Your task to perform on an android device: When is my next appointment? Image 0: 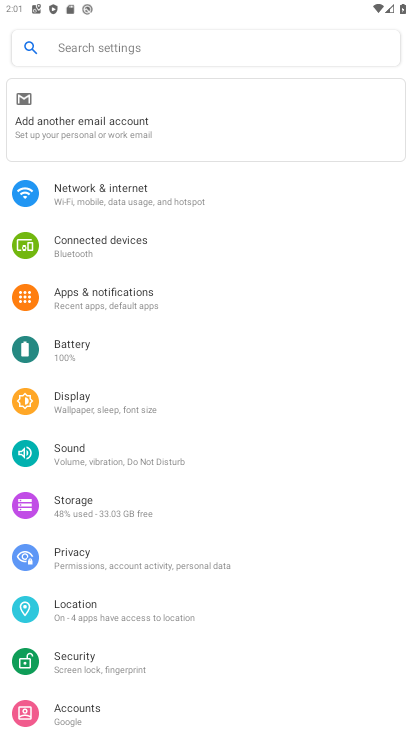
Step 0: press home button
Your task to perform on an android device: When is my next appointment? Image 1: 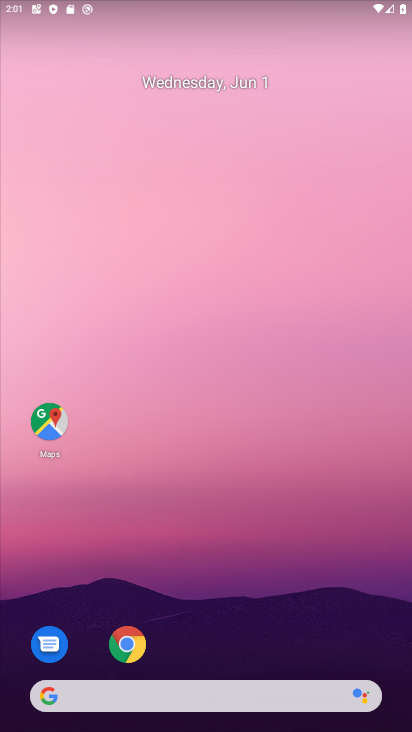
Step 1: drag from (213, 653) to (229, 297)
Your task to perform on an android device: When is my next appointment? Image 2: 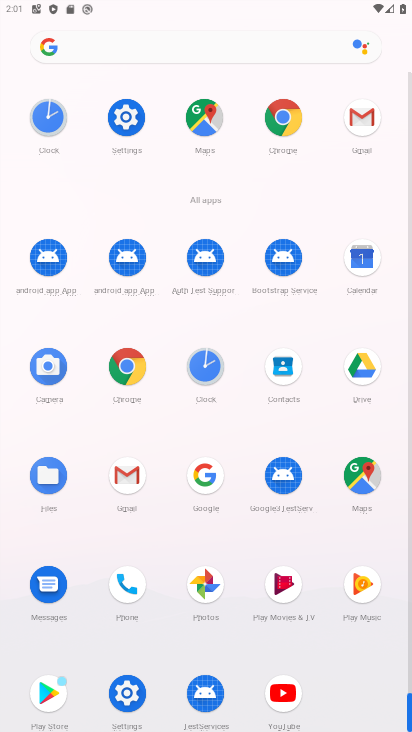
Step 2: click (363, 265)
Your task to perform on an android device: When is my next appointment? Image 3: 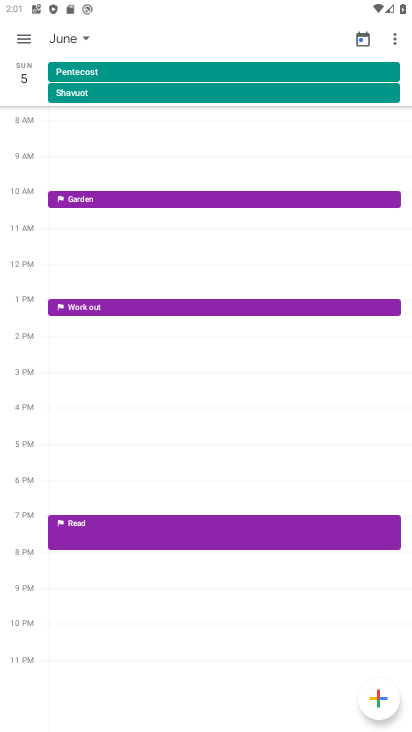
Step 3: click (80, 41)
Your task to perform on an android device: When is my next appointment? Image 4: 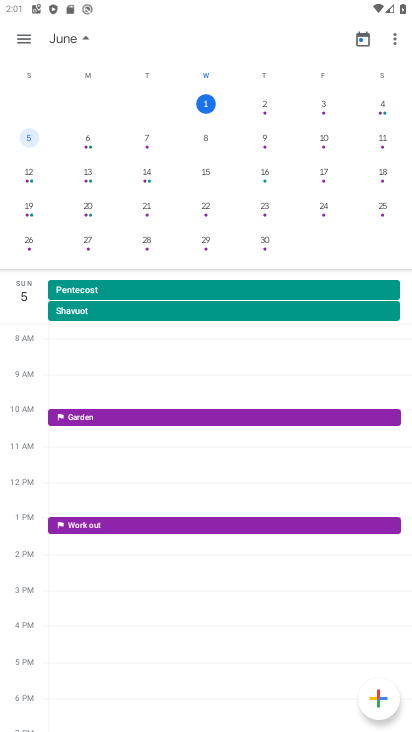
Step 4: click (382, 107)
Your task to perform on an android device: When is my next appointment? Image 5: 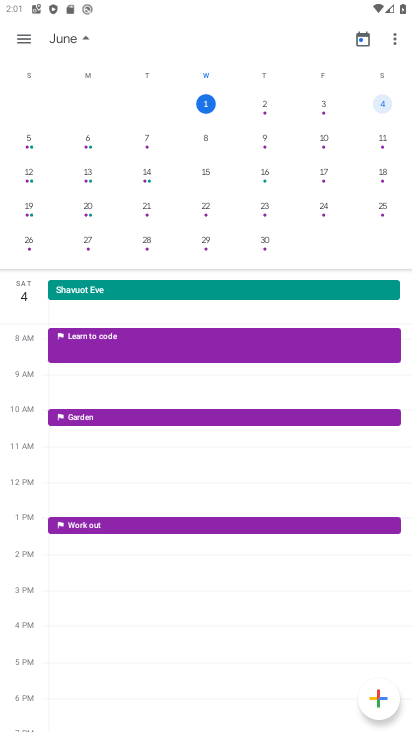
Step 5: click (31, 141)
Your task to perform on an android device: When is my next appointment? Image 6: 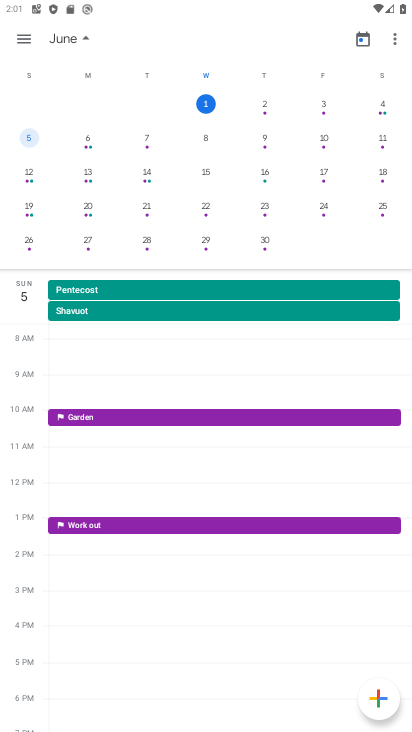
Step 6: click (101, 141)
Your task to perform on an android device: When is my next appointment? Image 7: 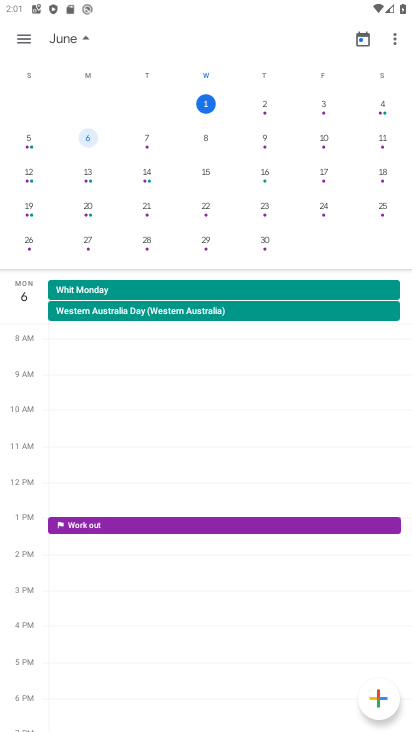
Step 7: click (144, 149)
Your task to perform on an android device: When is my next appointment? Image 8: 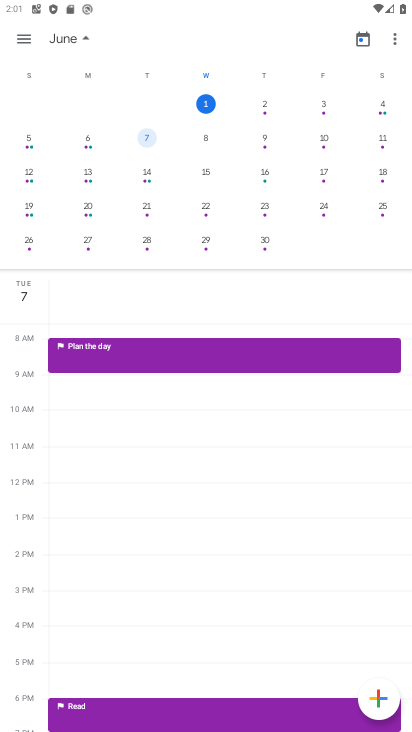
Step 8: click (199, 141)
Your task to perform on an android device: When is my next appointment? Image 9: 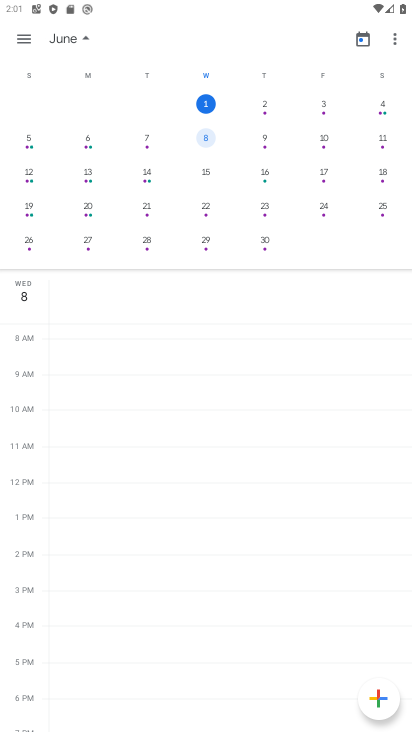
Step 9: click (254, 140)
Your task to perform on an android device: When is my next appointment? Image 10: 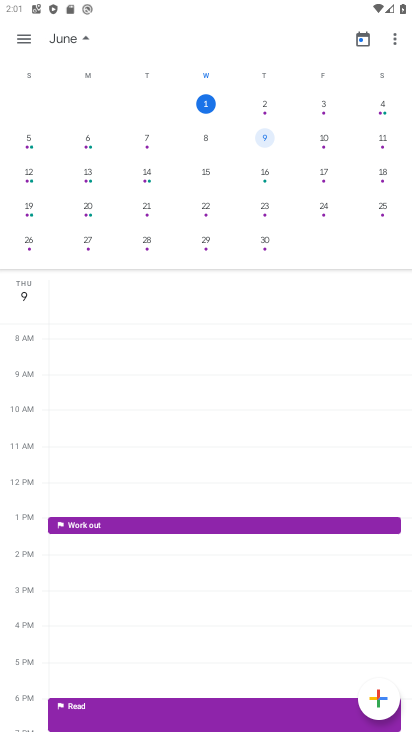
Step 10: click (323, 137)
Your task to perform on an android device: When is my next appointment? Image 11: 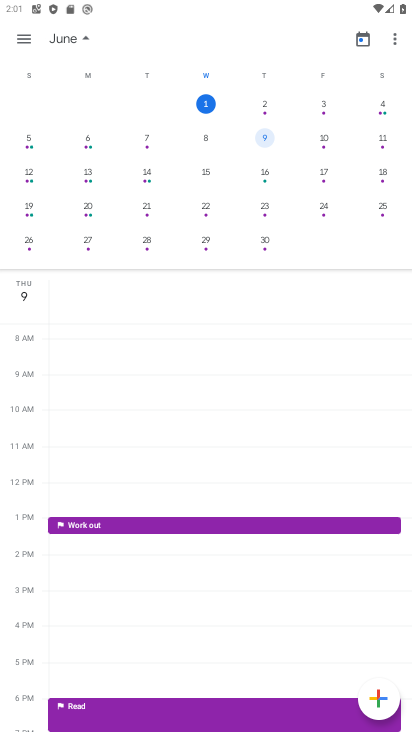
Step 11: click (377, 137)
Your task to perform on an android device: When is my next appointment? Image 12: 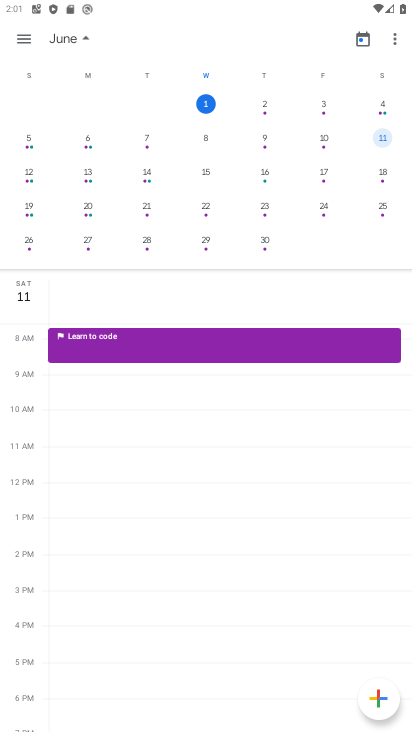
Step 12: click (30, 178)
Your task to perform on an android device: When is my next appointment? Image 13: 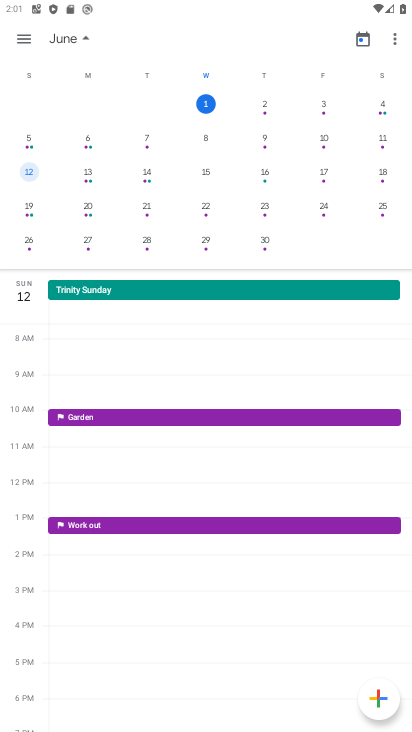
Step 13: click (92, 173)
Your task to perform on an android device: When is my next appointment? Image 14: 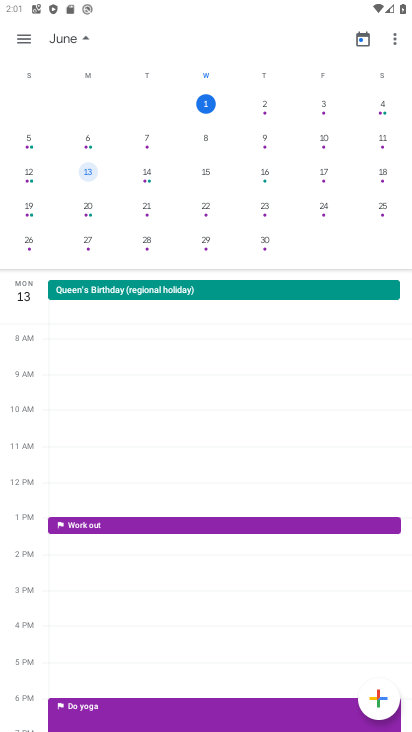
Step 14: task complete